Your task to perform on an android device: toggle pop-ups in chrome Image 0: 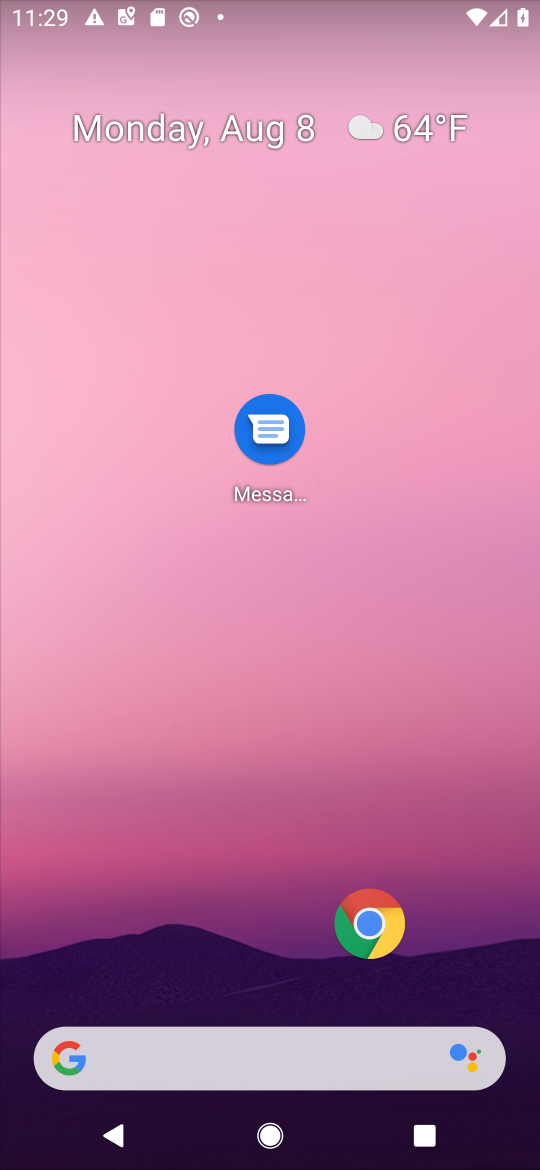
Step 0: click (380, 917)
Your task to perform on an android device: toggle pop-ups in chrome Image 1: 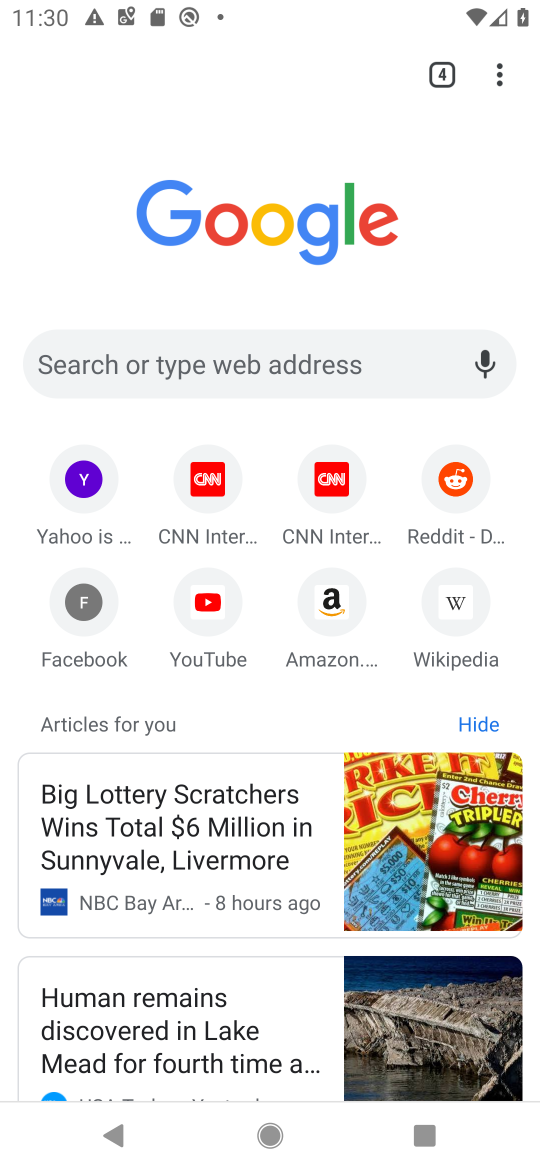
Step 1: click (499, 77)
Your task to perform on an android device: toggle pop-ups in chrome Image 2: 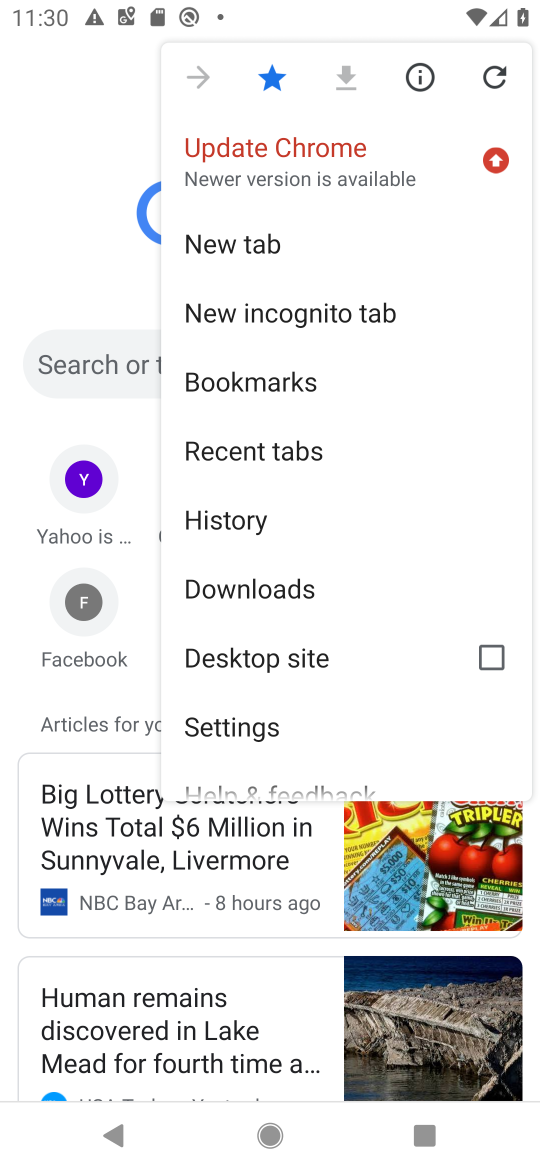
Step 2: click (261, 727)
Your task to perform on an android device: toggle pop-ups in chrome Image 3: 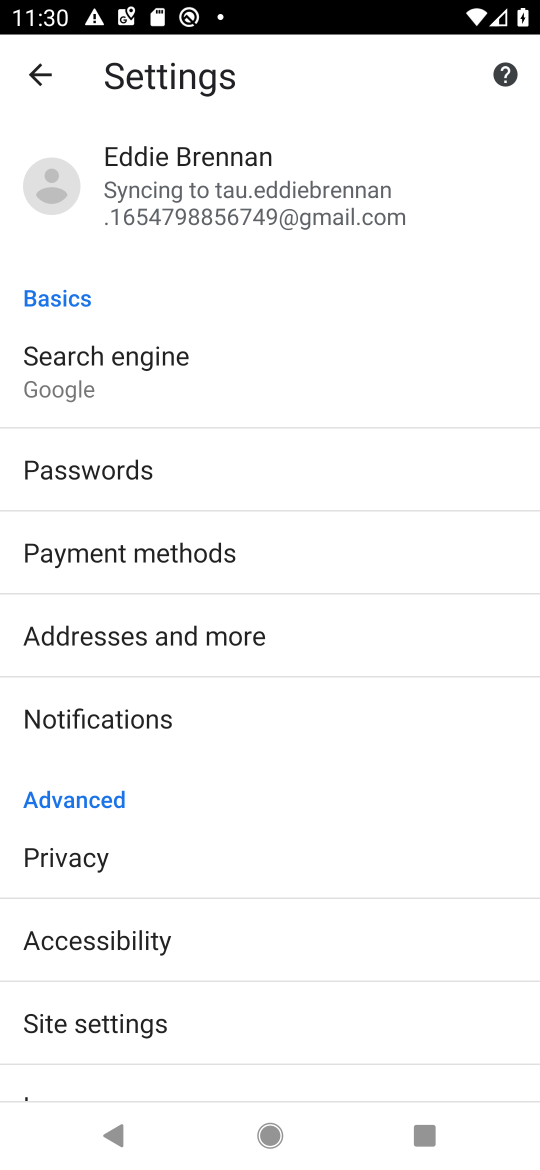
Step 3: click (107, 1009)
Your task to perform on an android device: toggle pop-ups in chrome Image 4: 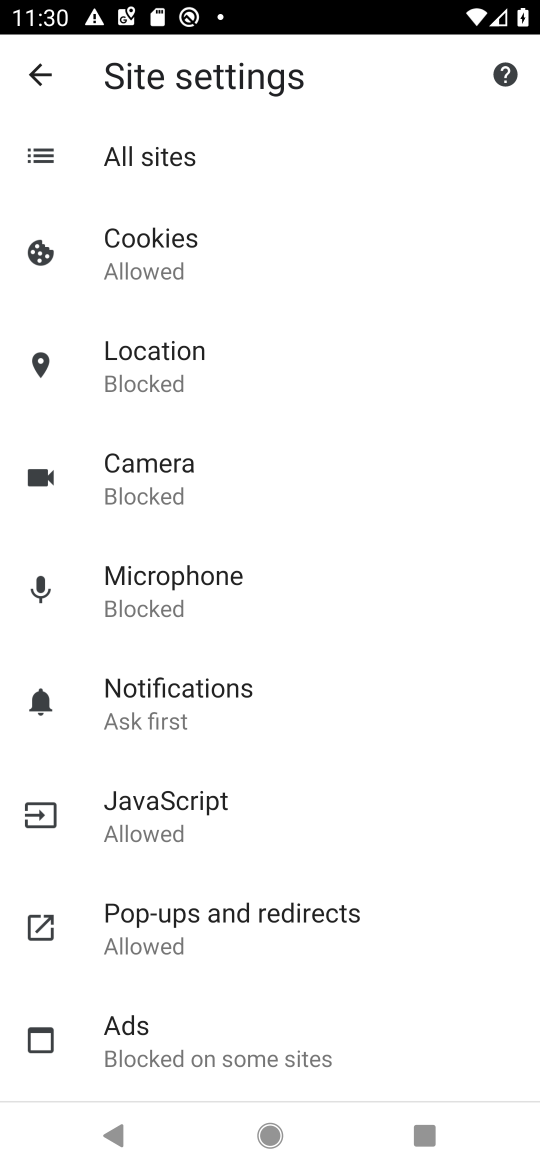
Step 4: click (204, 930)
Your task to perform on an android device: toggle pop-ups in chrome Image 5: 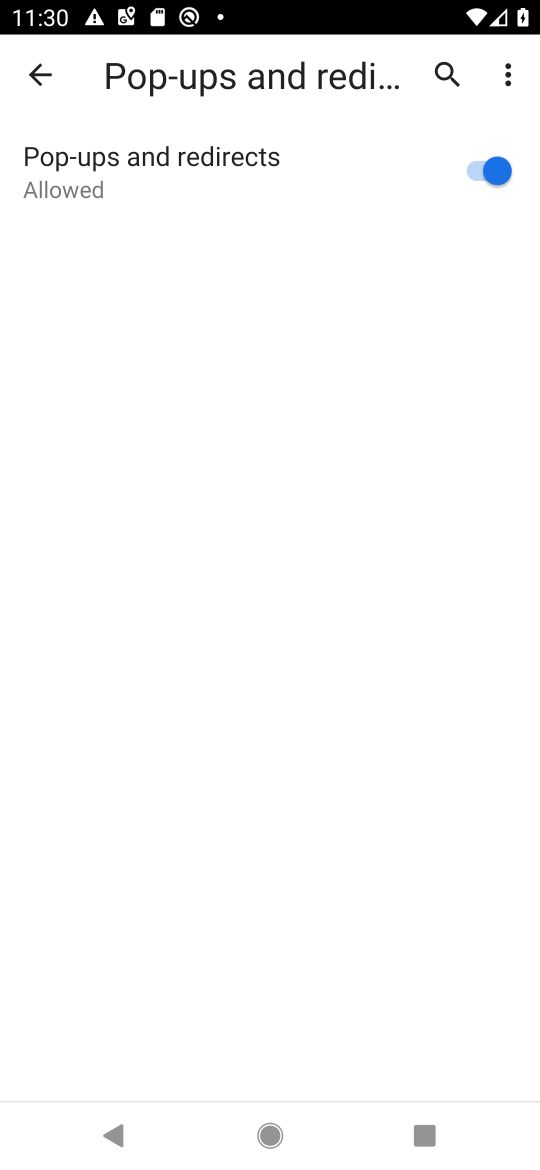
Step 5: task complete